Your task to perform on an android device: change the clock display to show seconds Image 0: 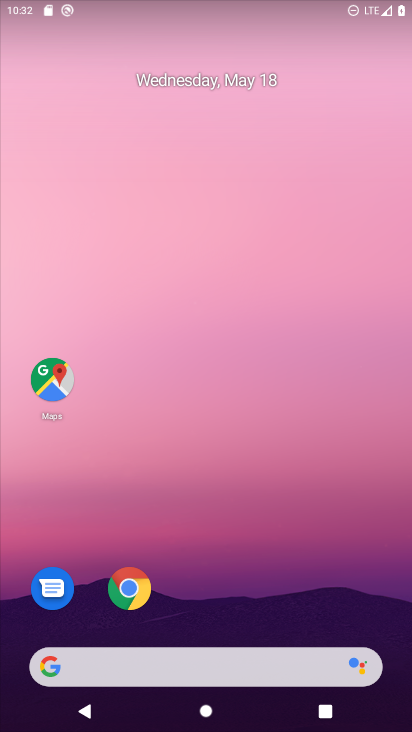
Step 0: drag from (329, 608) to (301, 0)
Your task to perform on an android device: change the clock display to show seconds Image 1: 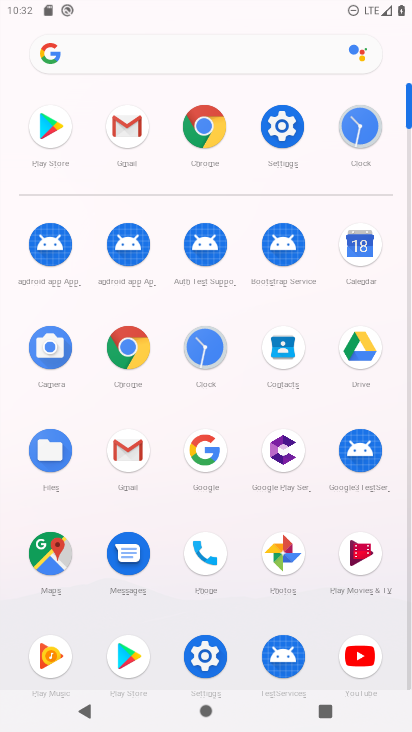
Step 1: click (358, 137)
Your task to perform on an android device: change the clock display to show seconds Image 2: 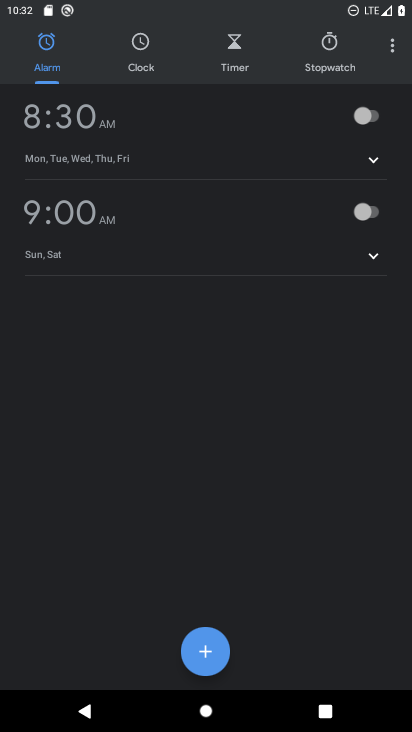
Step 2: click (402, 42)
Your task to perform on an android device: change the clock display to show seconds Image 3: 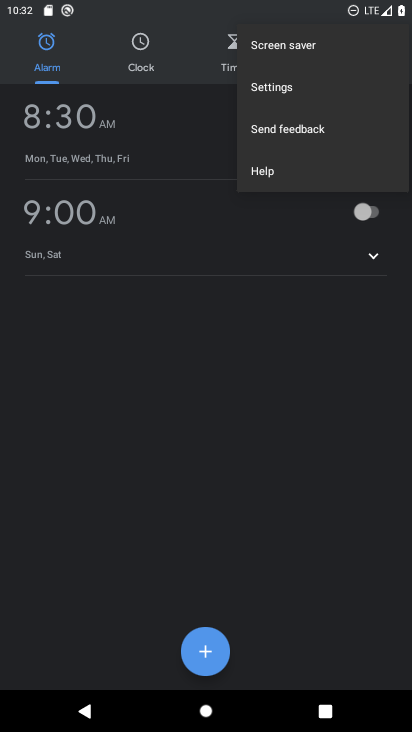
Step 3: click (275, 89)
Your task to perform on an android device: change the clock display to show seconds Image 4: 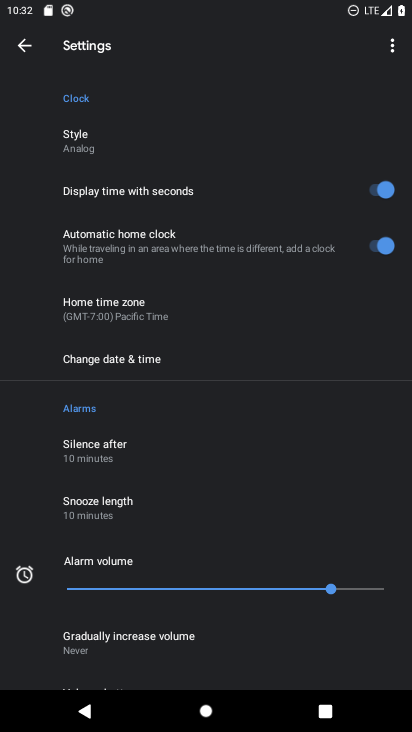
Step 4: task complete